Your task to perform on an android device: Show me popular games on the Play Store Image 0: 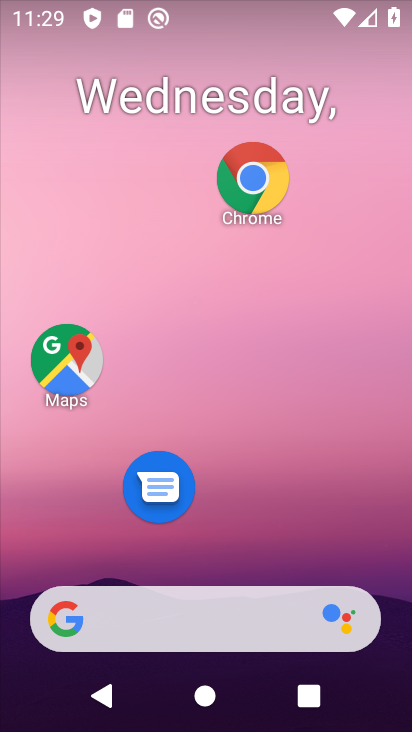
Step 0: drag from (318, 393) to (340, 69)
Your task to perform on an android device: Show me popular games on the Play Store Image 1: 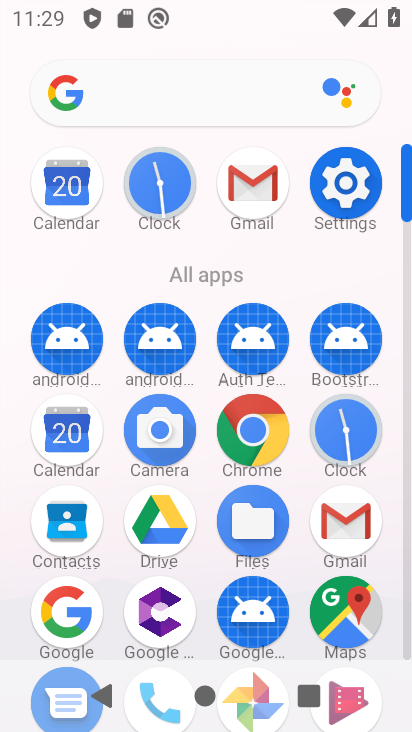
Step 1: drag from (297, 550) to (291, 212)
Your task to perform on an android device: Show me popular games on the Play Store Image 2: 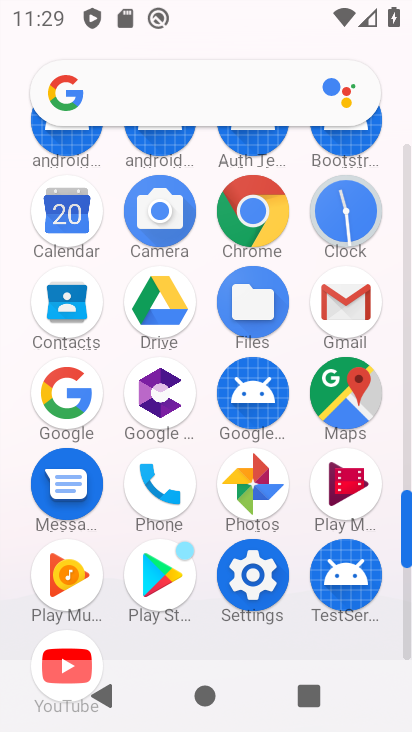
Step 2: click (168, 579)
Your task to perform on an android device: Show me popular games on the Play Store Image 3: 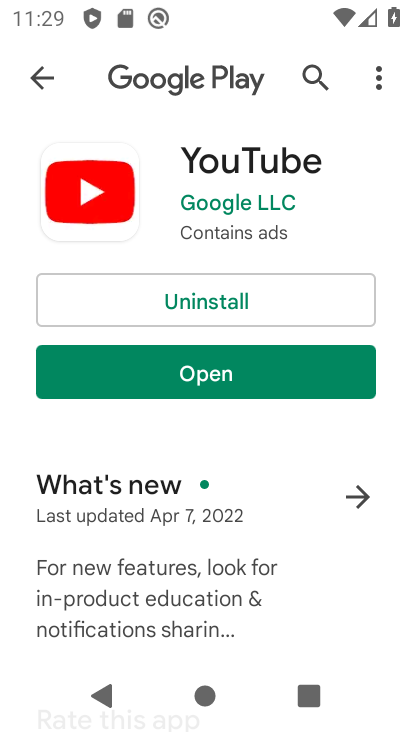
Step 3: click (257, 375)
Your task to perform on an android device: Show me popular games on the Play Store Image 4: 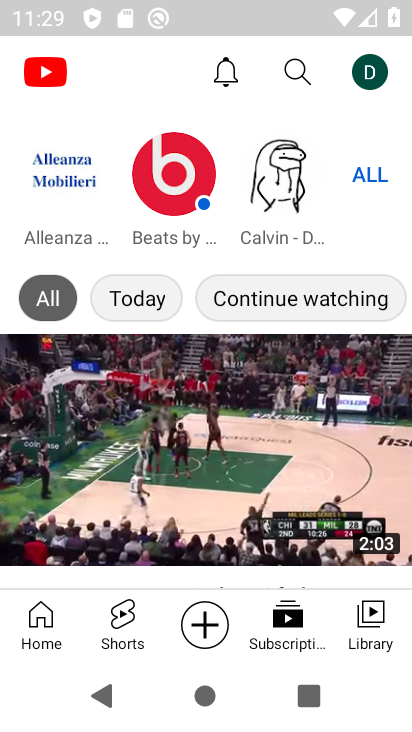
Step 4: press back button
Your task to perform on an android device: Show me popular games on the Play Store Image 5: 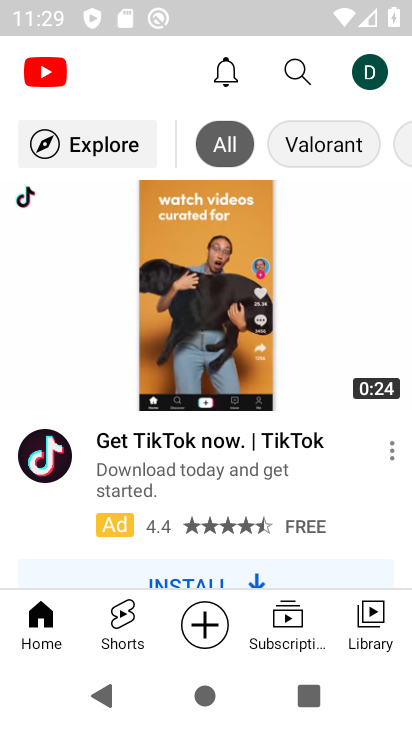
Step 5: press home button
Your task to perform on an android device: Show me popular games on the Play Store Image 6: 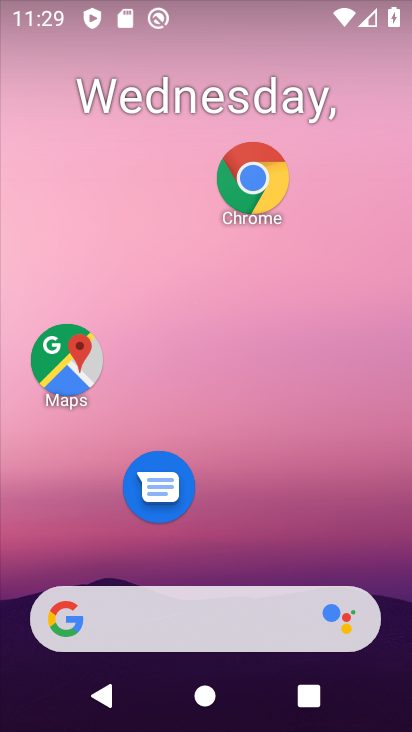
Step 6: drag from (285, 311) to (291, 4)
Your task to perform on an android device: Show me popular games on the Play Store Image 7: 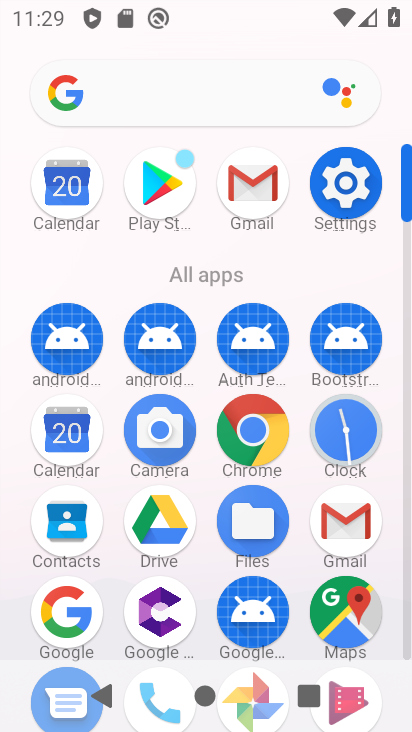
Step 7: click (160, 184)
Your task to perform on an android device: Show me popular games on the Play Store Image 8: 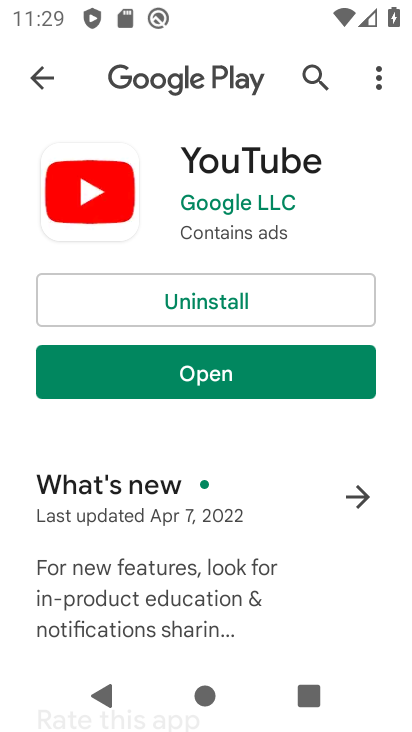
Step 8: click (39, 73)
Your task to perform on an android device: Show me popular games on the Play Store Image 9: 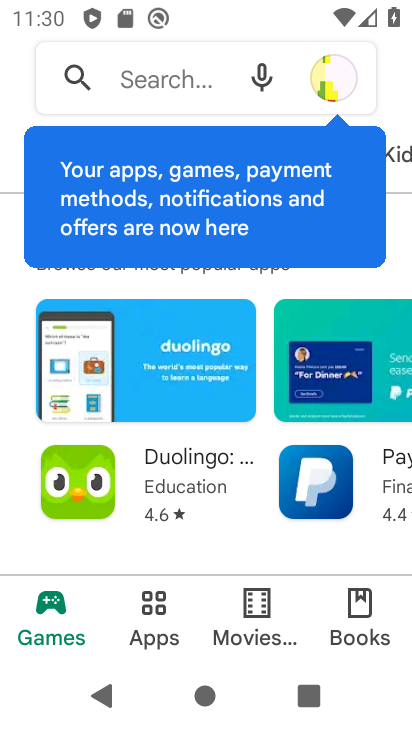
Step 9: click (43, 613)
Your task to perform on an android device: Show me popular games on the Play Store Image 10: 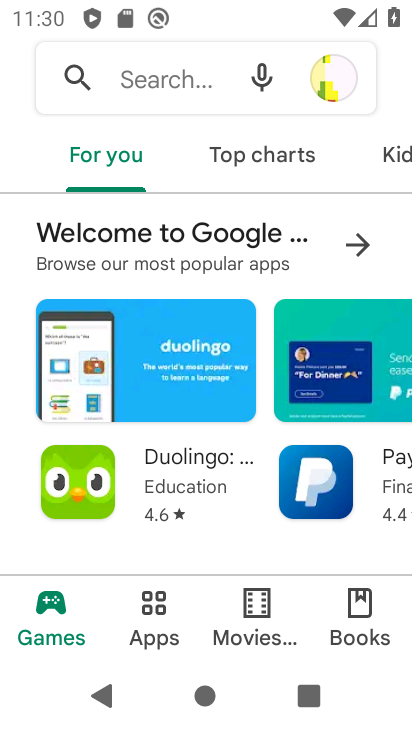
Step 10: drag from (257, 143) to (32, 157)
Your task to perform on an android device: Show me popular games on the Play Store Image 11: 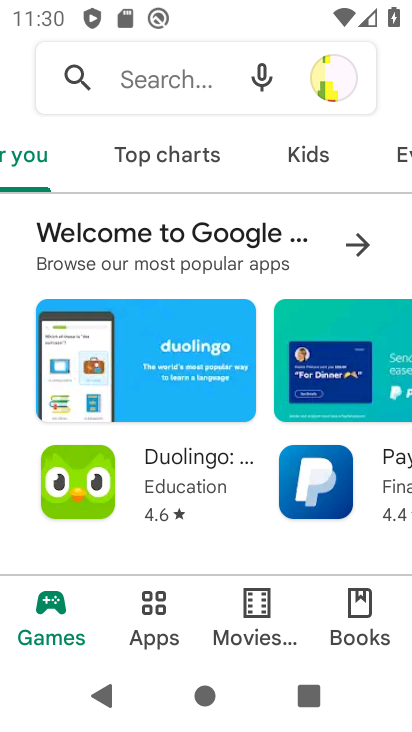
Step 11: drag from (357, 149) to (179, 176)
Your task to perform on an android device: Show me popular games on the Play Store Image 12: 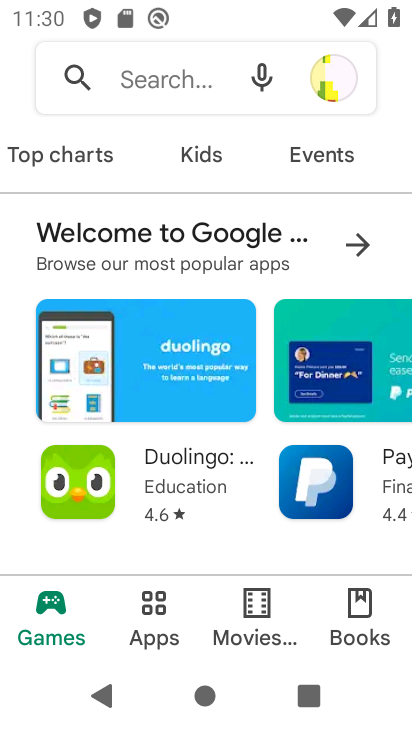
Step 12: drag from (322, 155) to (153, 164)
Your task to perform on an android device: Show me popular games on the Play Store Image 13: 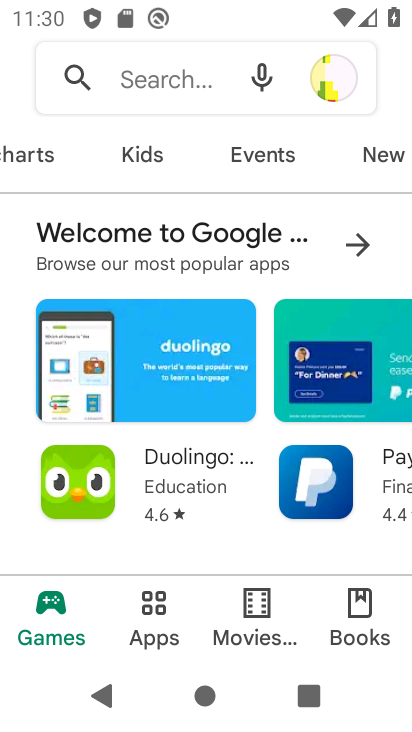
Step 13: drag from (351, 158) to (91, 195)
Your task to perform on an android device: Show me popular games on the Play Store Image 14: 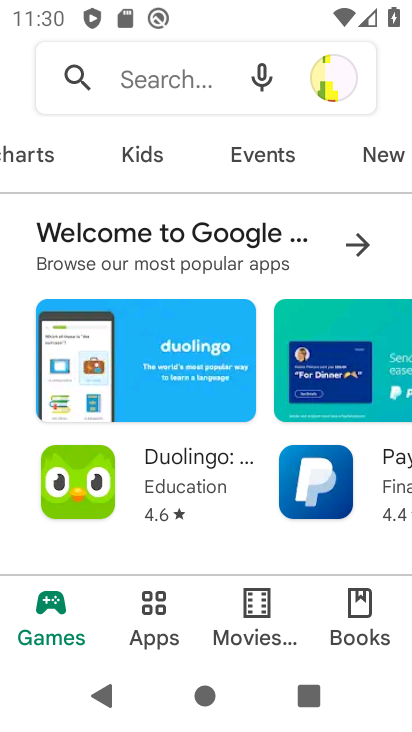
Step 14: drag from (342, 142) to (61, 141)
Your task to perform on an android device: Show me popular games on the Play Store Image 15: 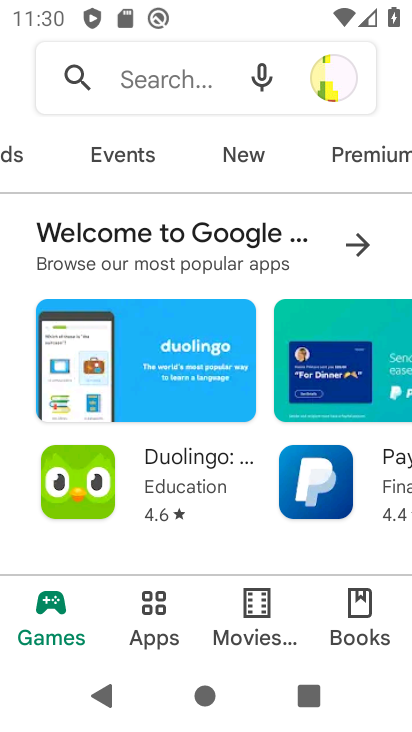
Step 15: drag from (379, 148) to (86, 157)
Your task to perform on an android device: Show me popular games on the Play Store Image 16: 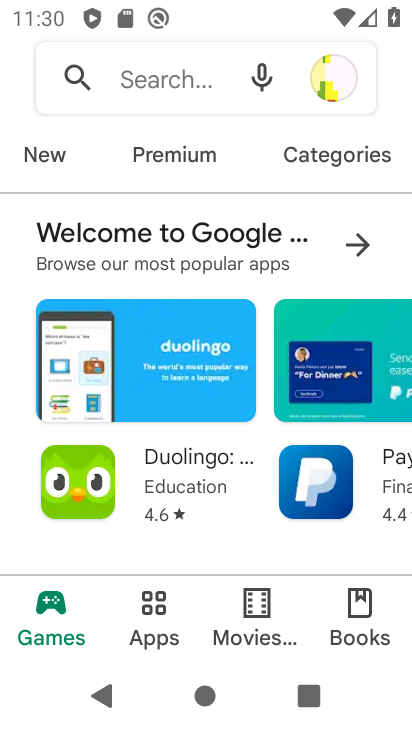
Step 16: drag from (245, 151) to (75, 166)
Your task to perform on an android device: Show me popular games on the Play Store Image 17: 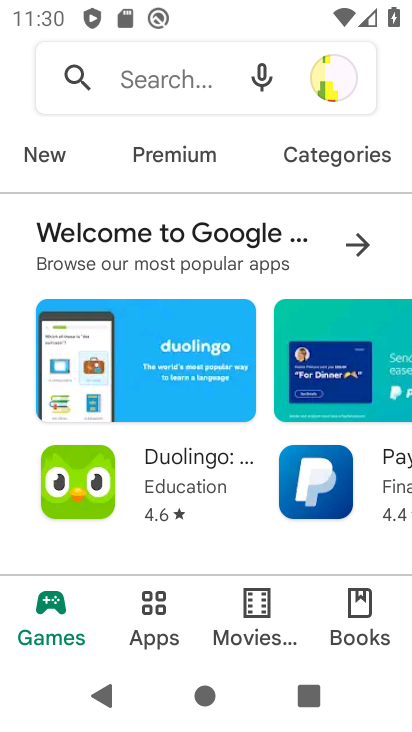
Step 17: drag from (242, 152) to (23, 163)
Your task to perform on an android device: Show me popular games on the Play Store Image 18: 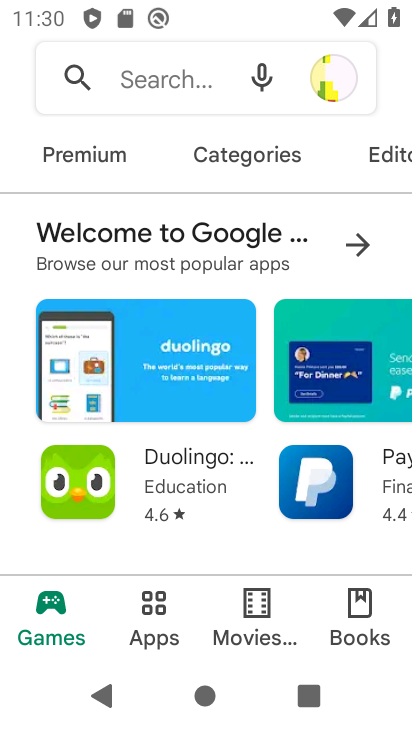
Step 18: drag from (260, 147) to (41, 167)
Your task to perform on an android device: Show me popular games on the Play Store Image 19: 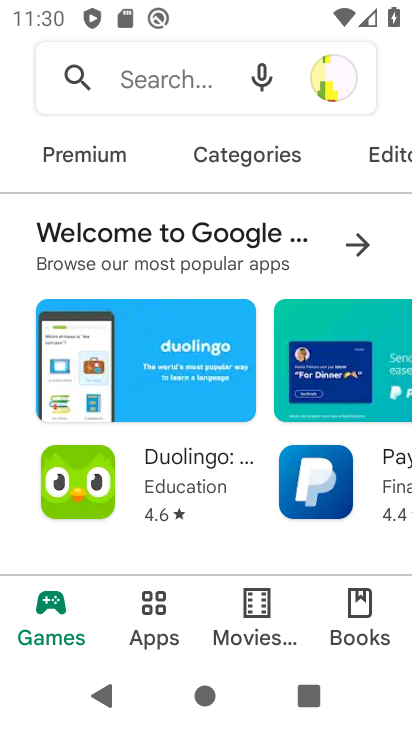
Step 19: drag from (294, 152) to (73, 151)
Your task to perform on an android device: Show me popular games on the Play Store Image 20: 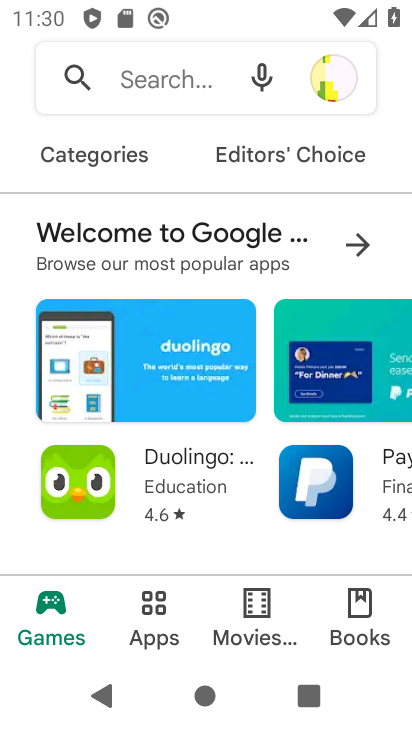
Step 20: drag from (269, 153) to (1, 172)
Your task to perform on an android device: Show me popular games on the Play Store Image 21: 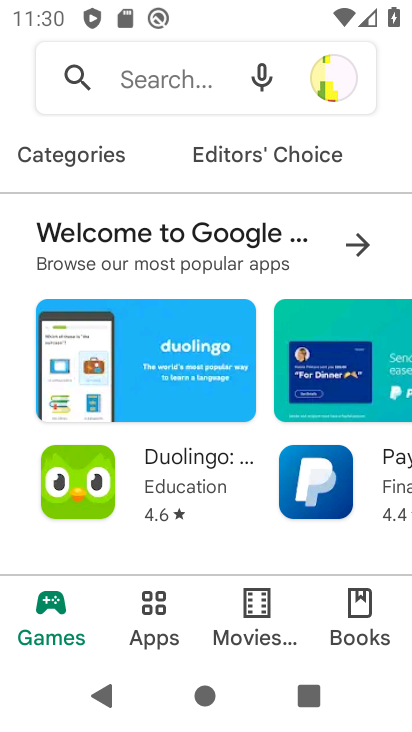
Step 21: drag from (191, 153) to (0, 142)
Your task to perform on an android device: Show me popular games on the Play Store Image 22: 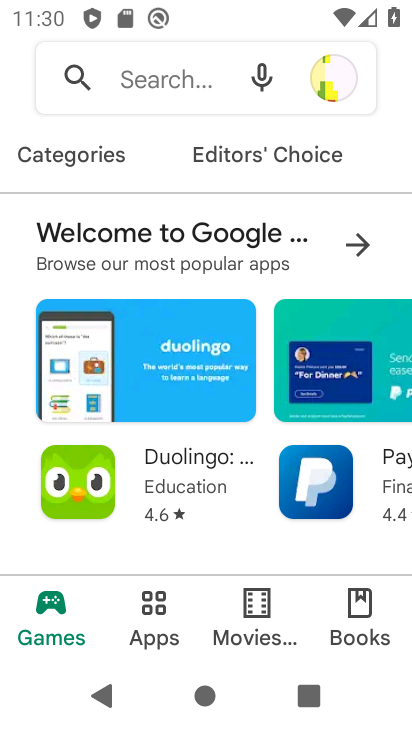
Step 22: drag from (60, 147) to (297, 142)
Your task to perform on an android device: Show me popular games on the Play Store Image 23: 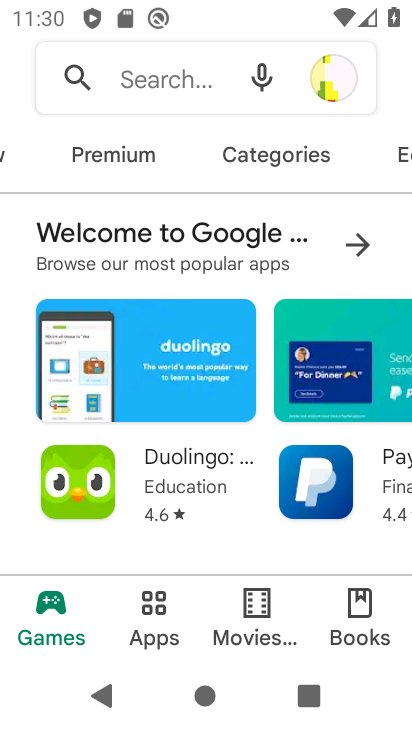
Step 23: drag from (49, 143) to (391, 154)
Your task to perform on an android device: Show me popular games on the Play Store Image 24: 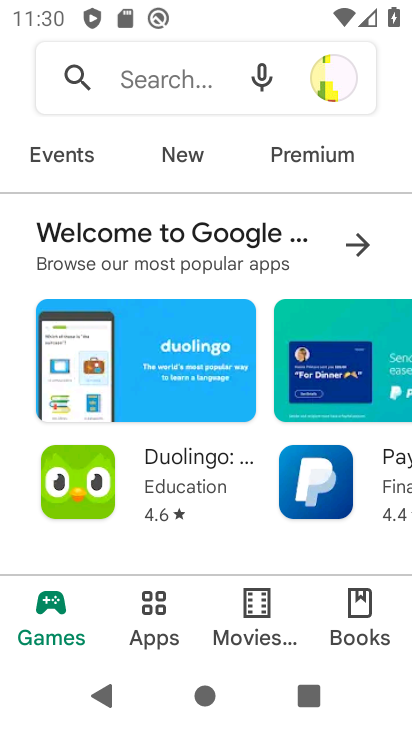
Step 24: drag from (122, 159) to (373, 163)
Your task to perform on an android device: Show me popular games on the Play Store Image 25: 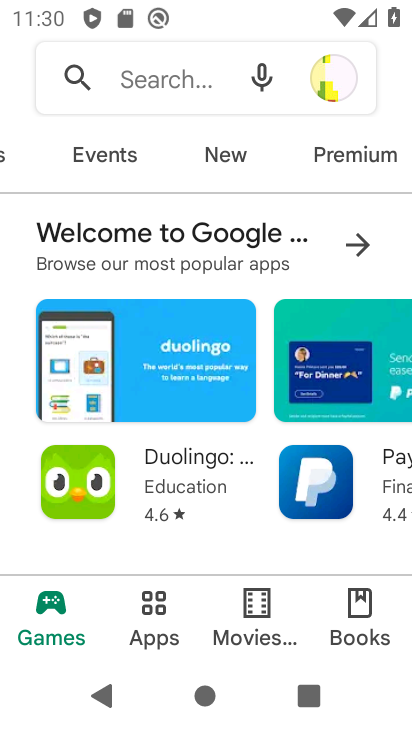
Step 25: drag from (74, 148) to (407, 156)
Your task to perform on an android device: Show me popular games on the Play Store Image 26: 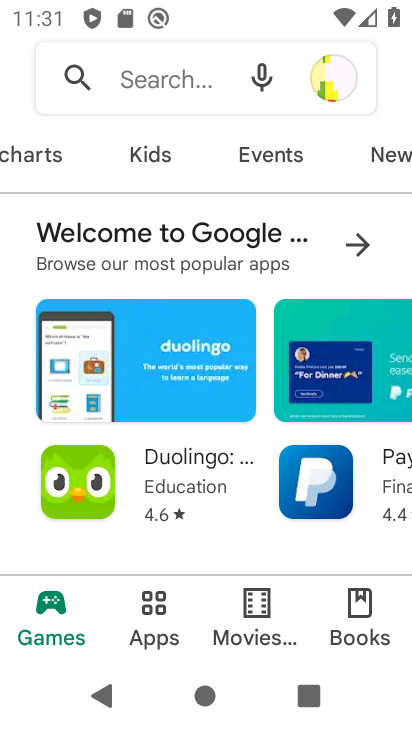
Step 26: drag from (93, 148) to (404, 133)
Your task to perform on an android device: Show me popular games on the Play Store Image 27: 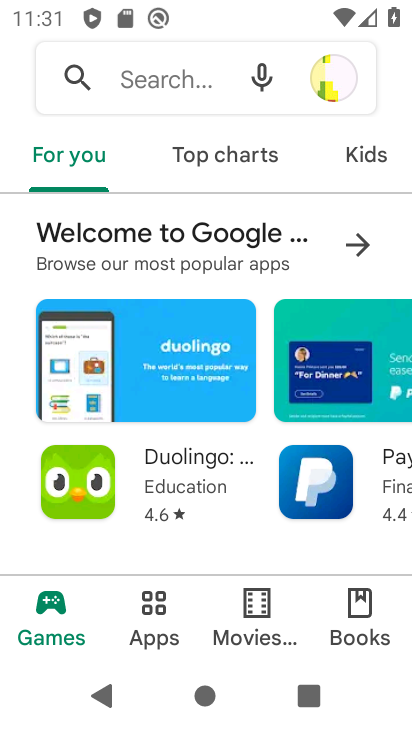
Step 27: click (208, 150)
Your task to perform on an android device: Show me popular games on the Play Store Image 28: 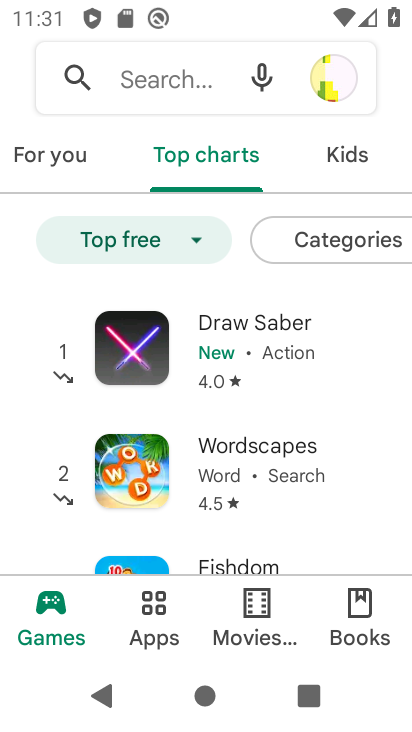
Step 28: task complete